Your task to perform on an android device: Search for seafood restaurants on Google Maps Image 0: 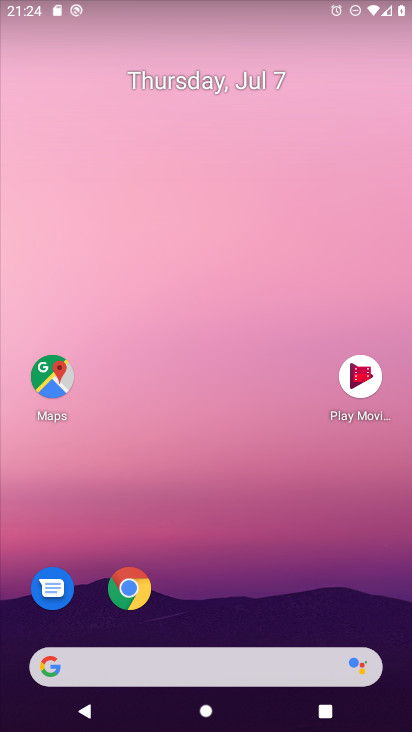
Step 0: click (51, 371)
Your task to perform on an android device: Search for seafood restaurants on Google Maps Image 1: 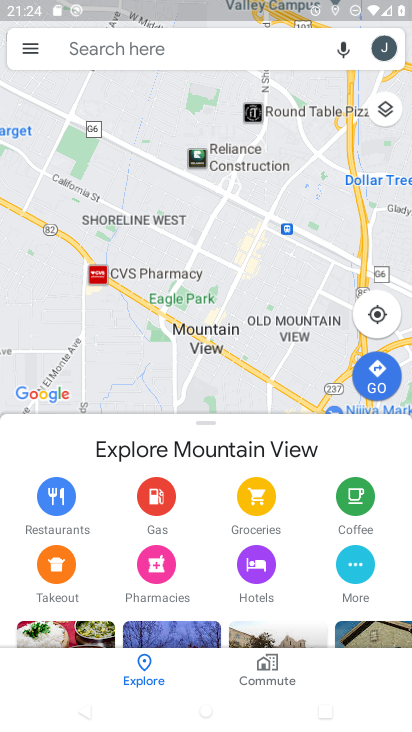
Step 1: click (170, 48)
Your task to perform on an android device: Search for seafood restaurants on Google Maps Image 2: 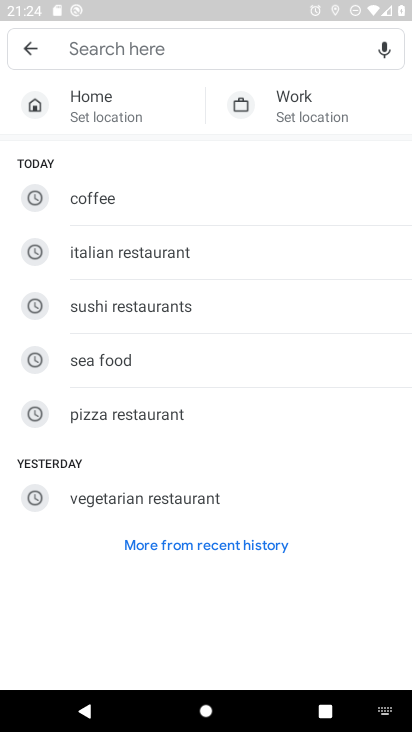
Step 2: type " seafood restaurants "
Your task to perform on an android device: Search for seafood restaurants on Google Maps Image 3: 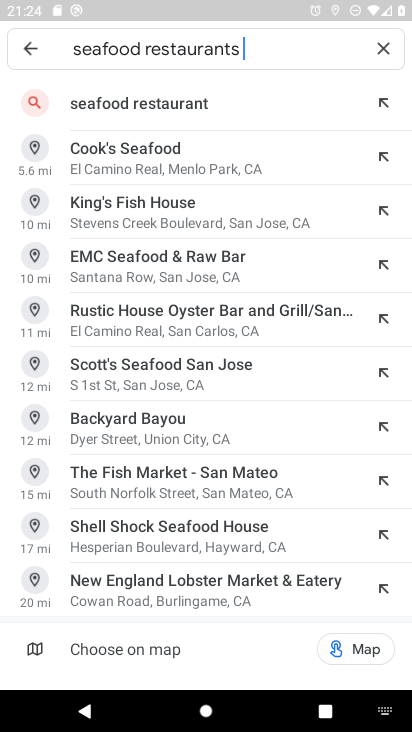
Step 3: click (154, 98)
Your task to perform on an android device: Search for seafood restaurants on Google Maps Image 4: 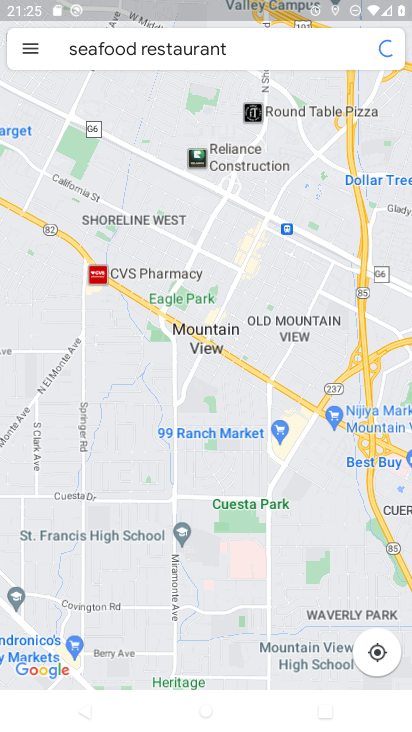
Step 4: task complete